Your task to perform on an android device: toggle javascript in the chrome app Image 0: 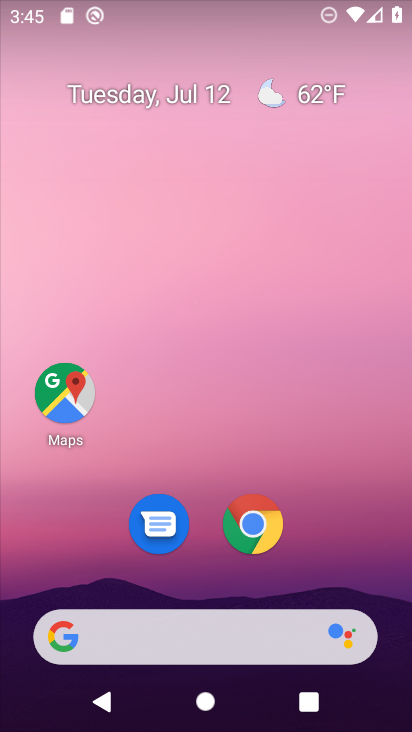
Step 0: click (264, 532)
Your task to perform on an android device: toggle javascript in the chrome app Image 1: 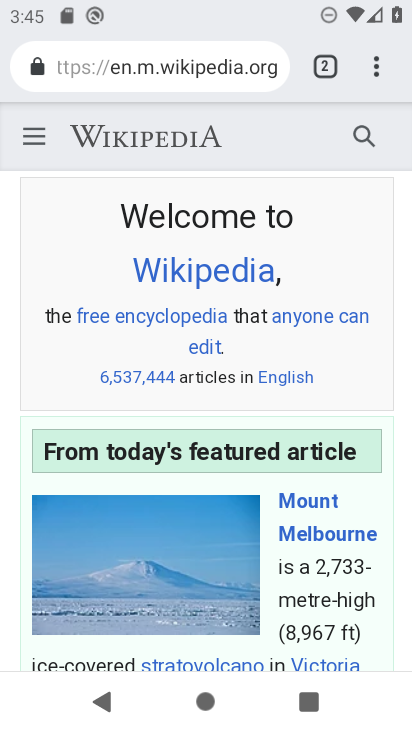
Step 1: click (375, 56)
Your task to perform on an android device: toggle javascript in the chrome app Image 2: 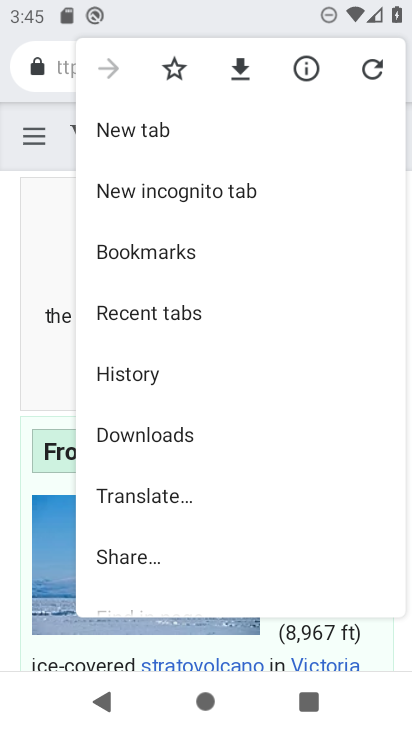
Step 2: drag from (205, 469) to (246, 86)
Your task to perform on an android device: toggle javascript in the chrome app Image 3: 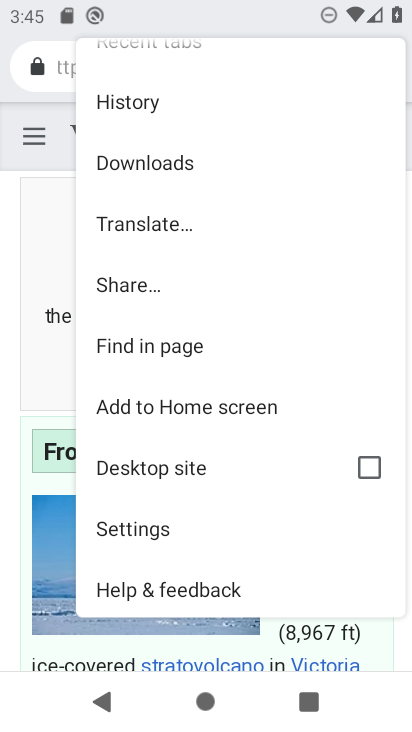
Step 3: click (158, 525)
Your task to perform on an android device: toggle javascript in the chrome app Image 4: 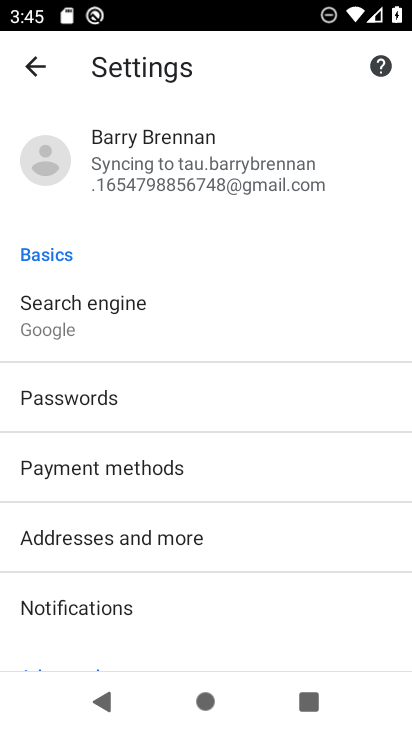
Step 4: drag from (268, 425) to (300, 9)
Your task to perform on an android device: toggle javascript in the chrome app Image 5: 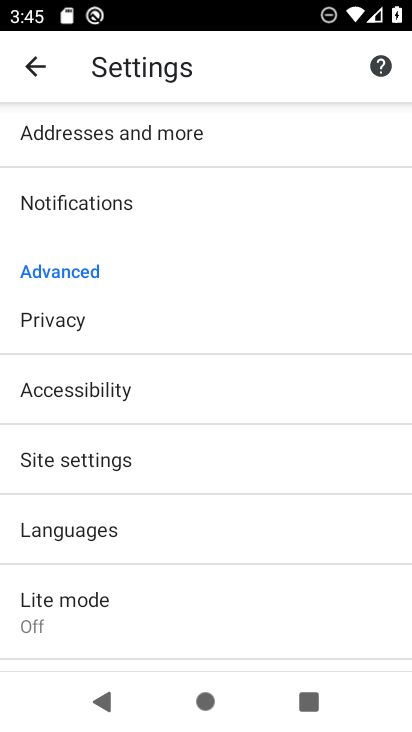
Step 5: click (111, 452)
Your task to perform on an android device: toggle javascript in the chrome app Image 6: 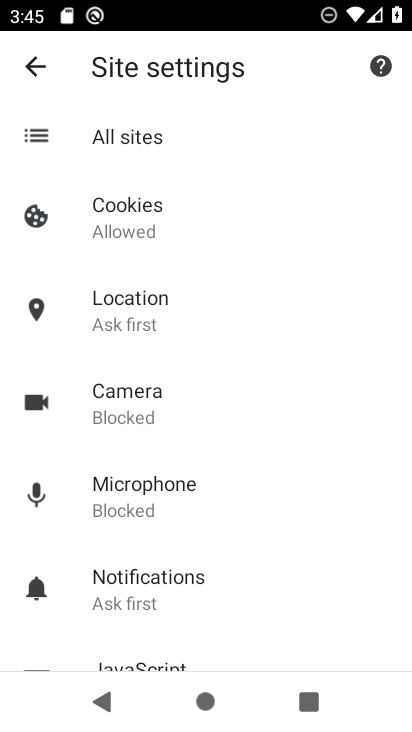
Step 6: drag from (230, 503) to (238, 130)
Your task to perform on an android device: toggle javascript in the chrome app Image 7: 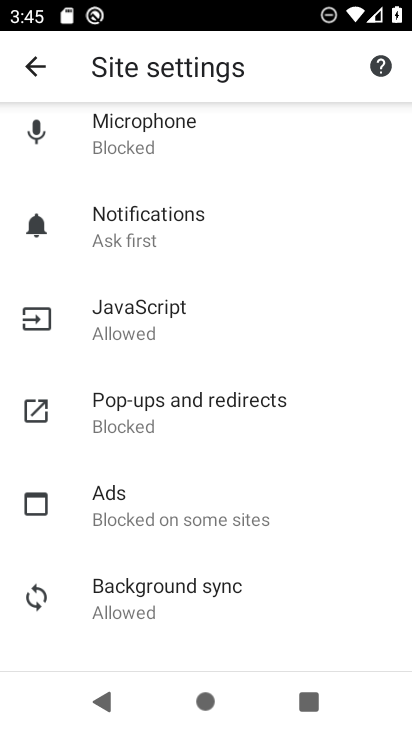
Step 7: click (192, 323)
Your task to perform on an android device: toggle javascript in the chrome app Image 8: 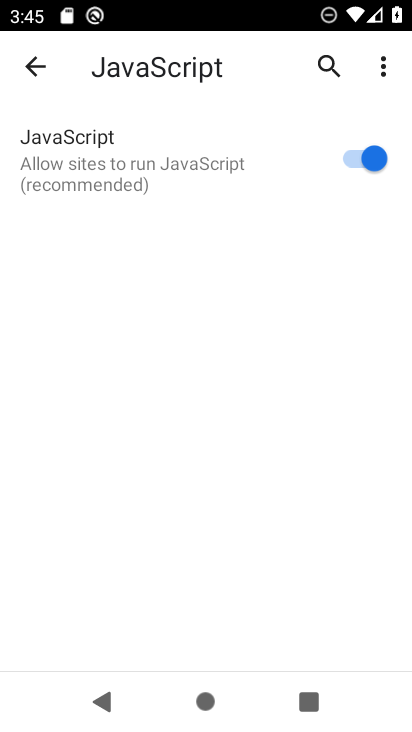
Step 8: click (359, 155)
Your task to perform on an android device: toggle javascript in the chrome app Image 9: 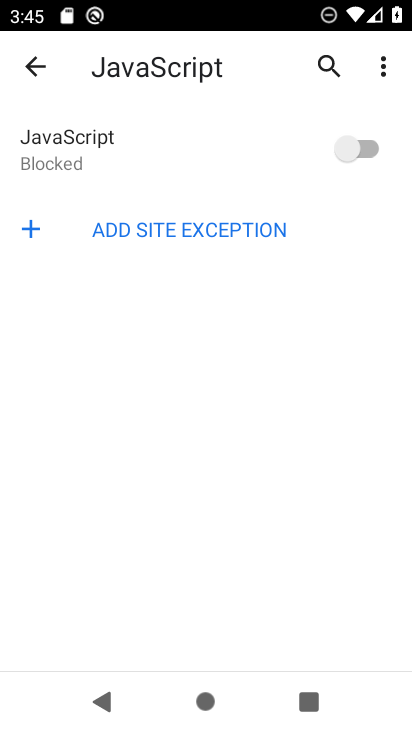
Step 9: task complete